Your task to perform on an android device: Go to eBay Image 0: 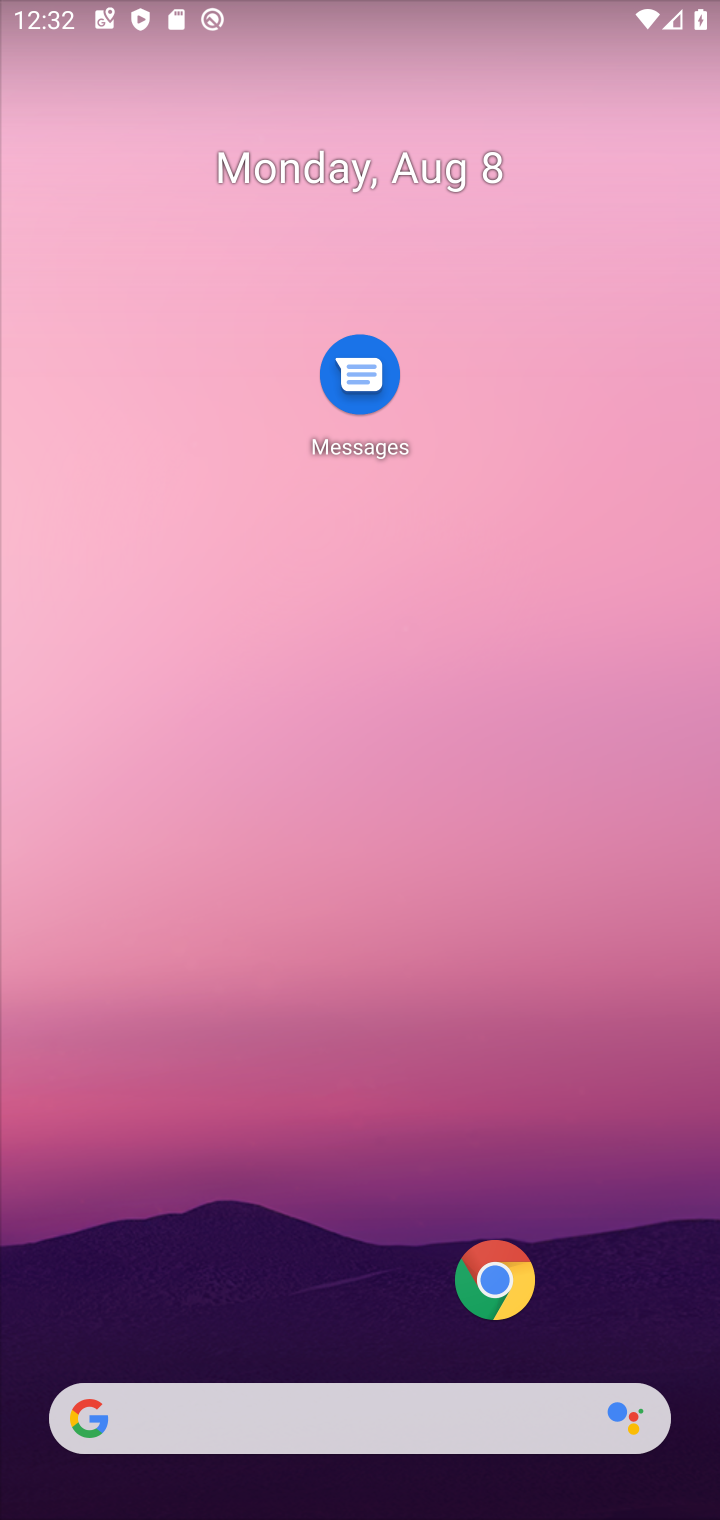
Step 0: press back button
Your task to perform on an android device: Go to eBay Image 1: 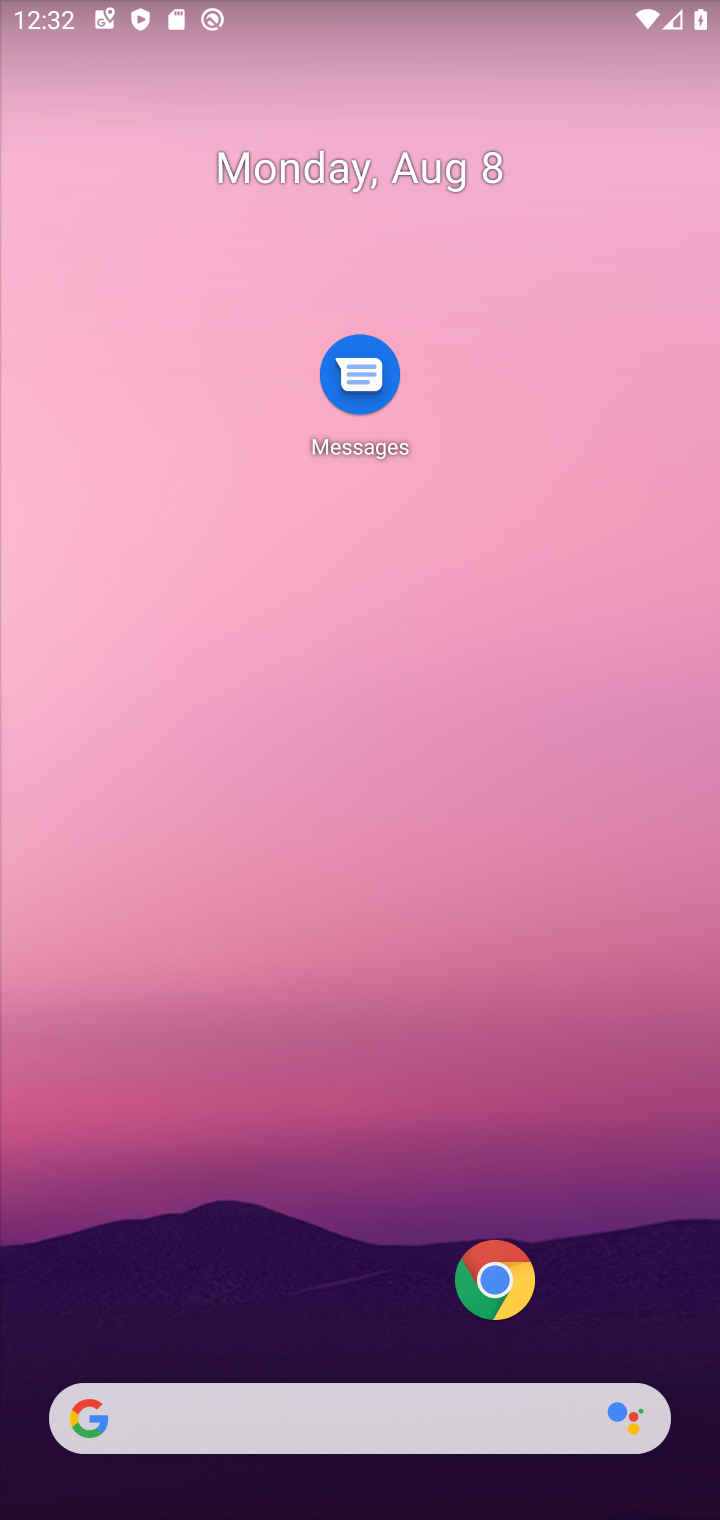
Step 1: click (512, 1282)
Your task to perform on an android device: Go to eBay Image 2: 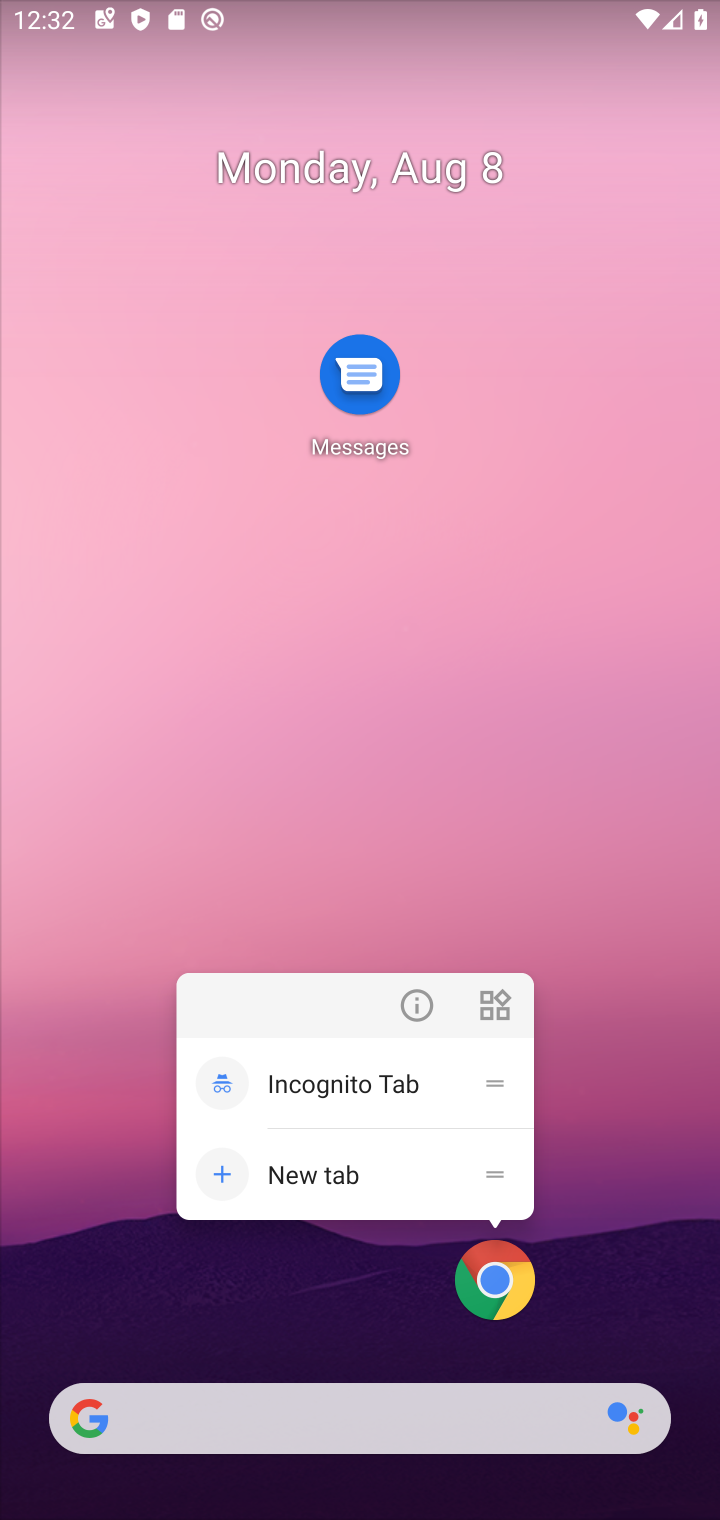
Step 2: click (521, 1277)
Your task to perform on an android device: Go to eBay Image 3: 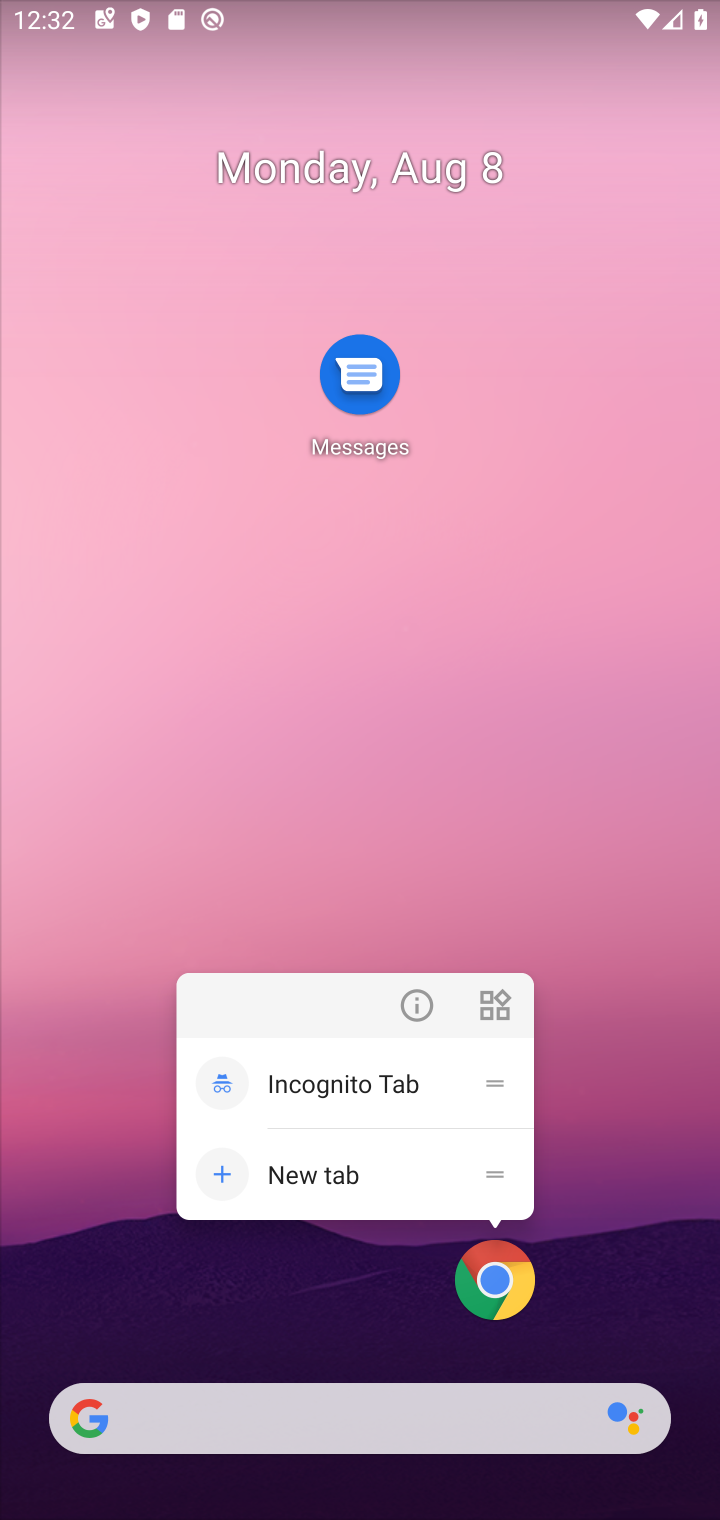
Step 3: click (499, 1295)
Your task to perform on an android device: Go to eBay Image 4: 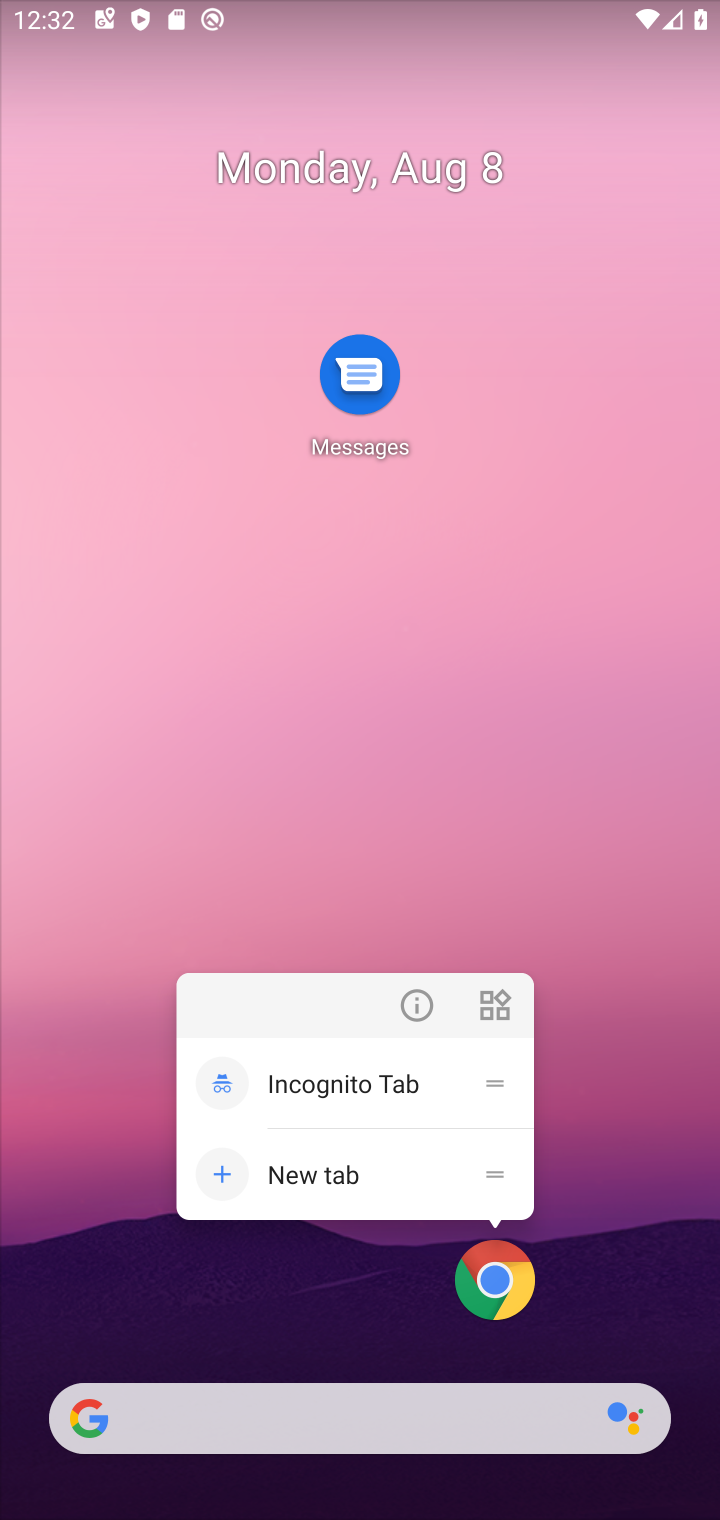
Step 4: click (484, 1281)
Your task to perform on an android device: Go to eBay Image 5: 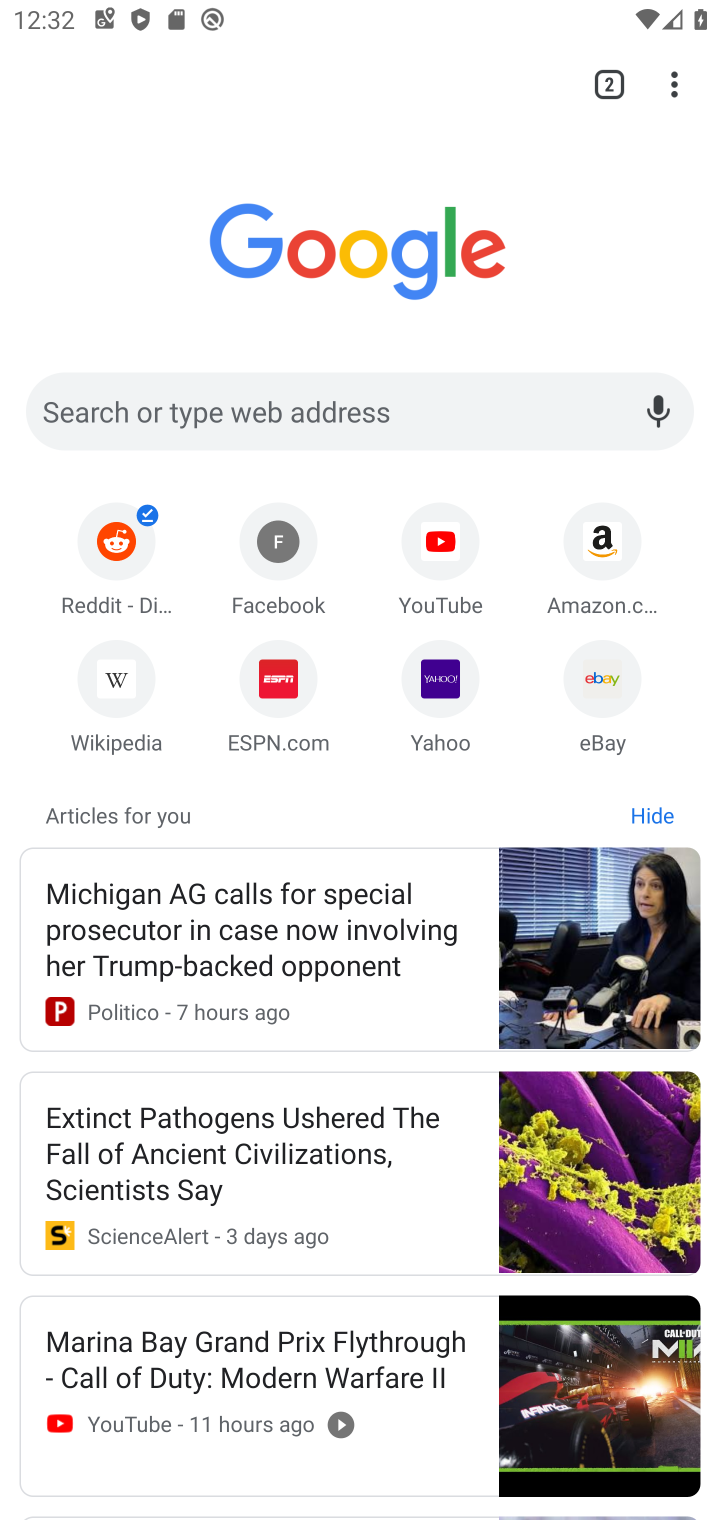
Step 5: click (606, 683)
Your task to perform on an android device: Go to eBay Image 6: 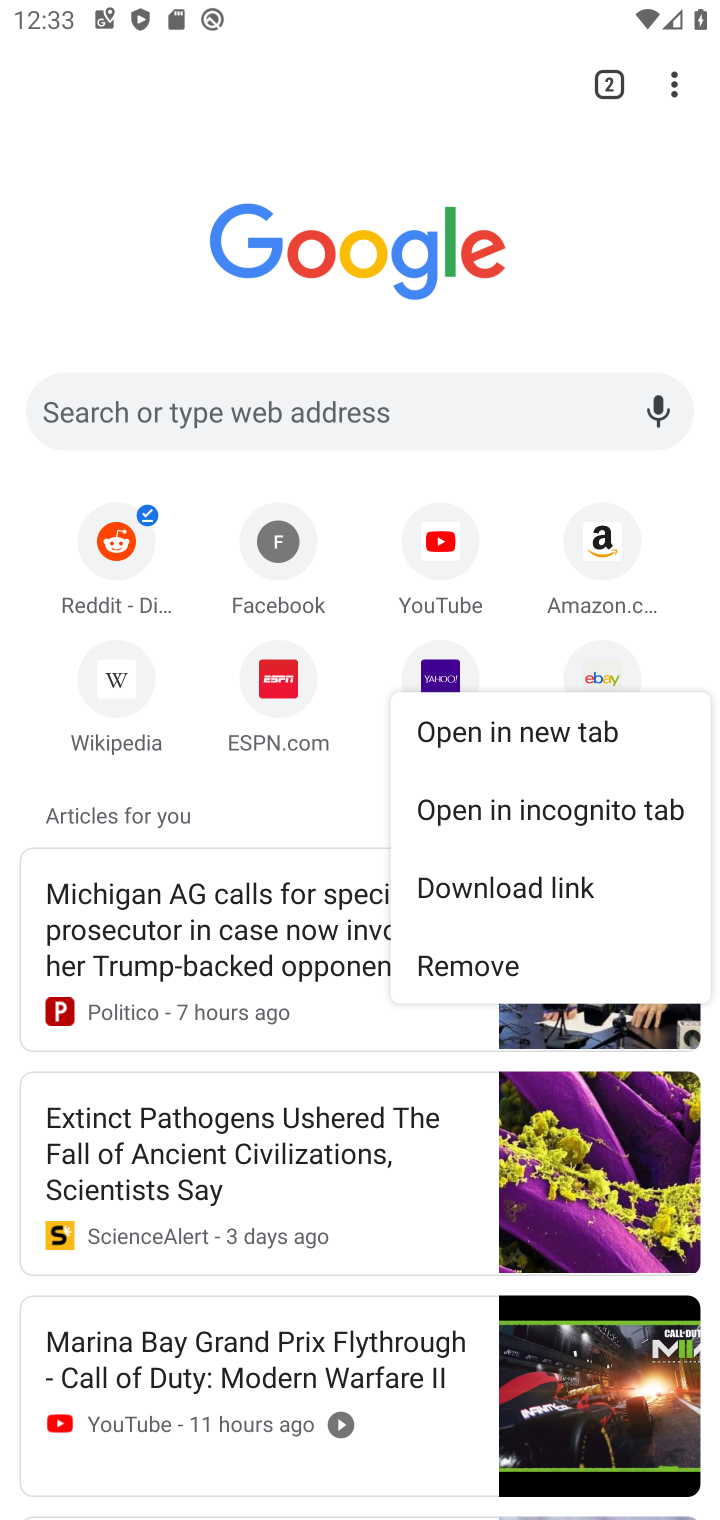
Step 6: click (599, 661)
Your task to perform on an android device: Go to eBay Image 7: 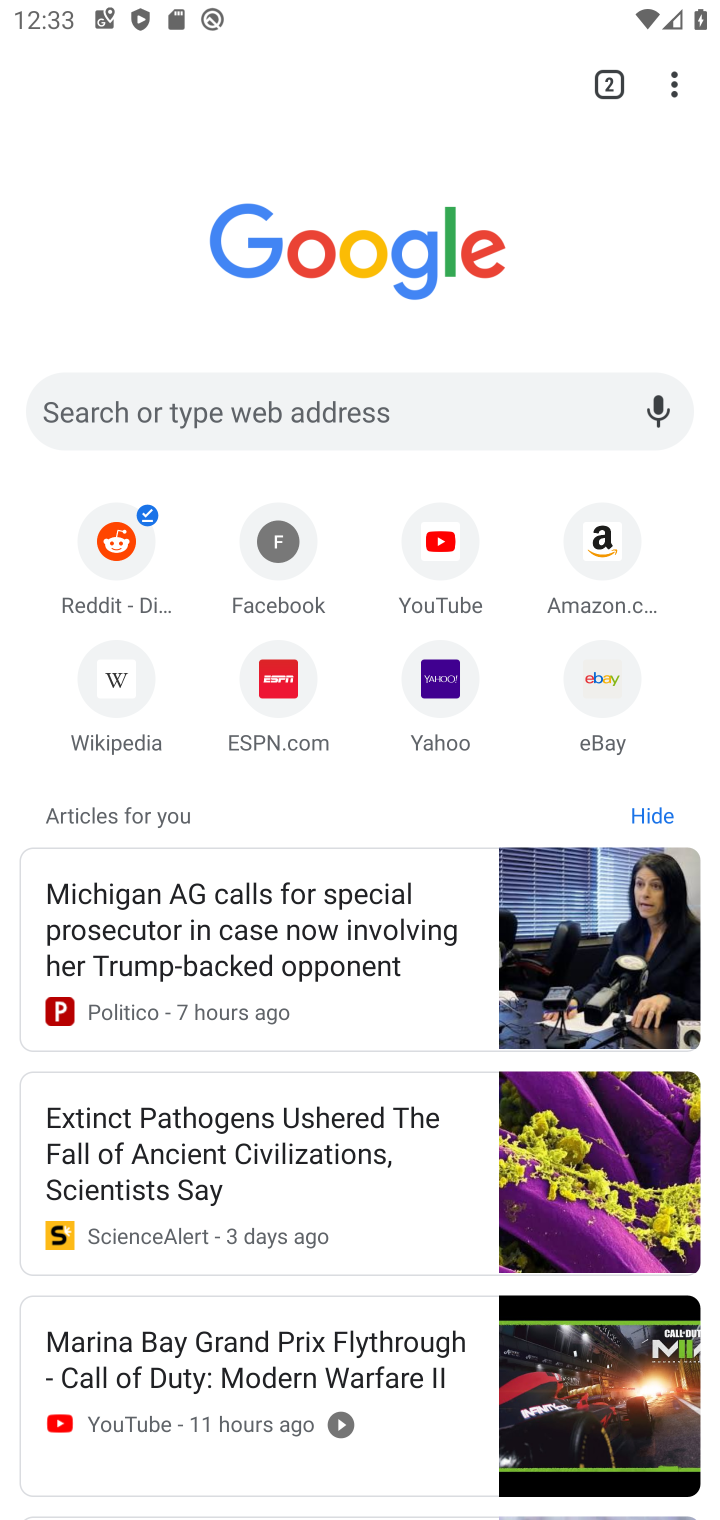
Step 7: click (602, 678)
Your task to perform on an android device: Go to eBay Image 8: 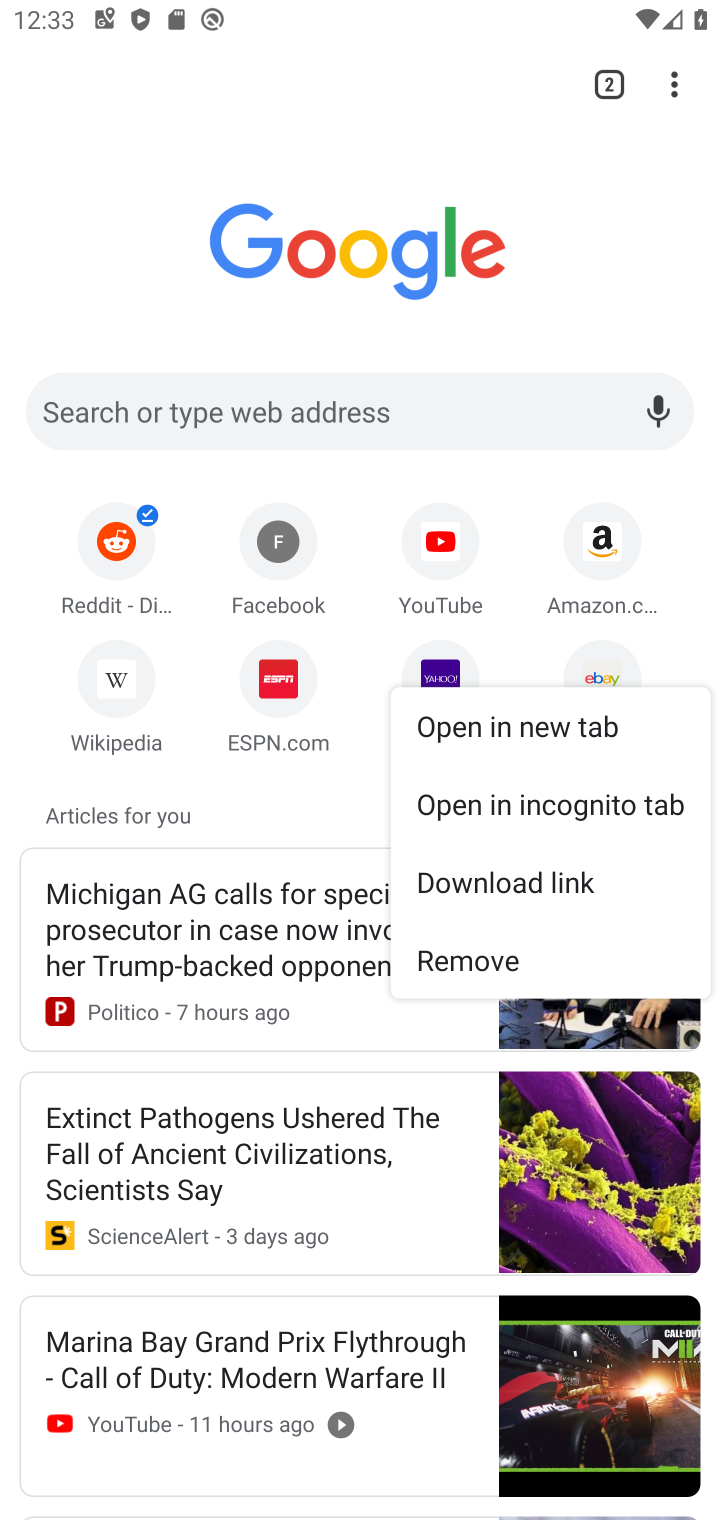
Step 8: click (607, 658)
Your task to perform on an android device: Go to eBay Image 9: 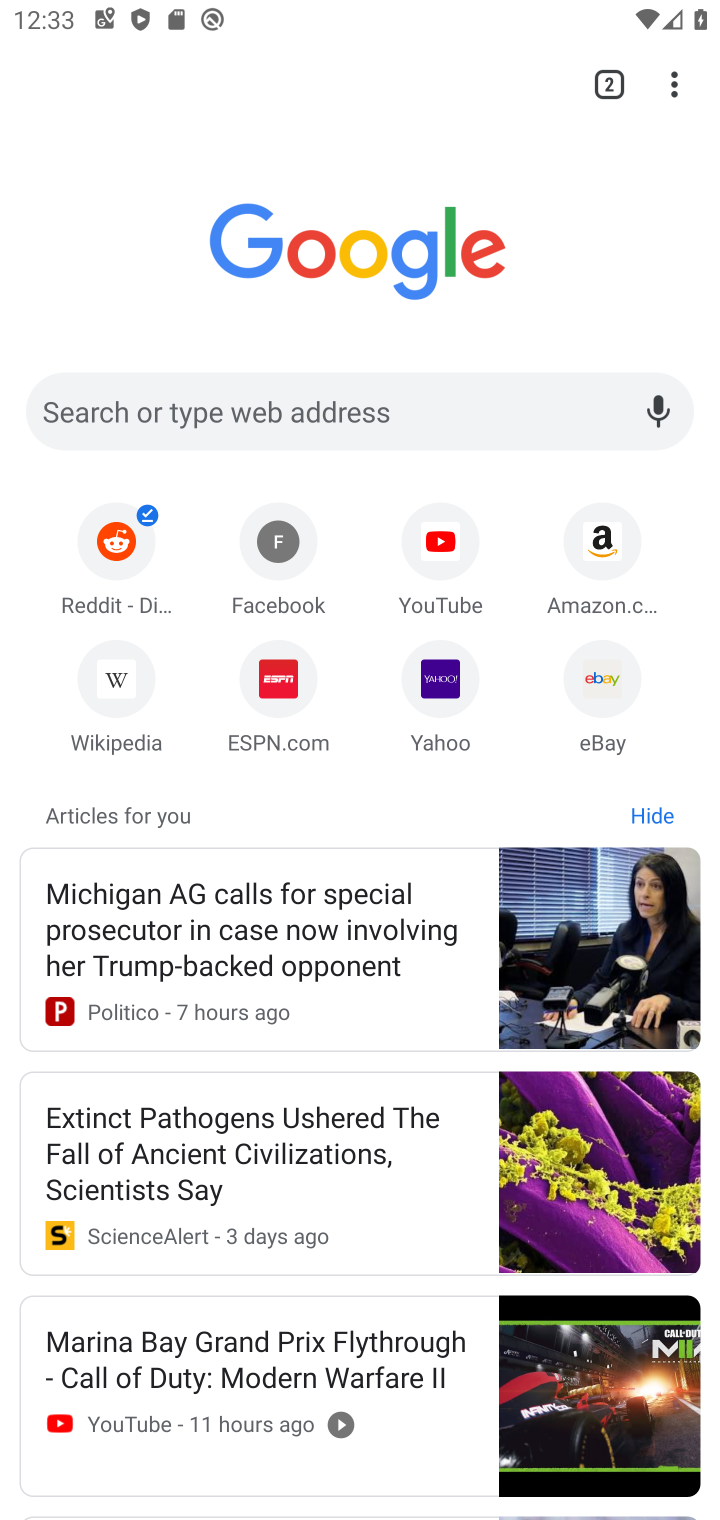
Step 9: click (604, 676)
Your task to perform on an android device: Go to eBay Image 10: 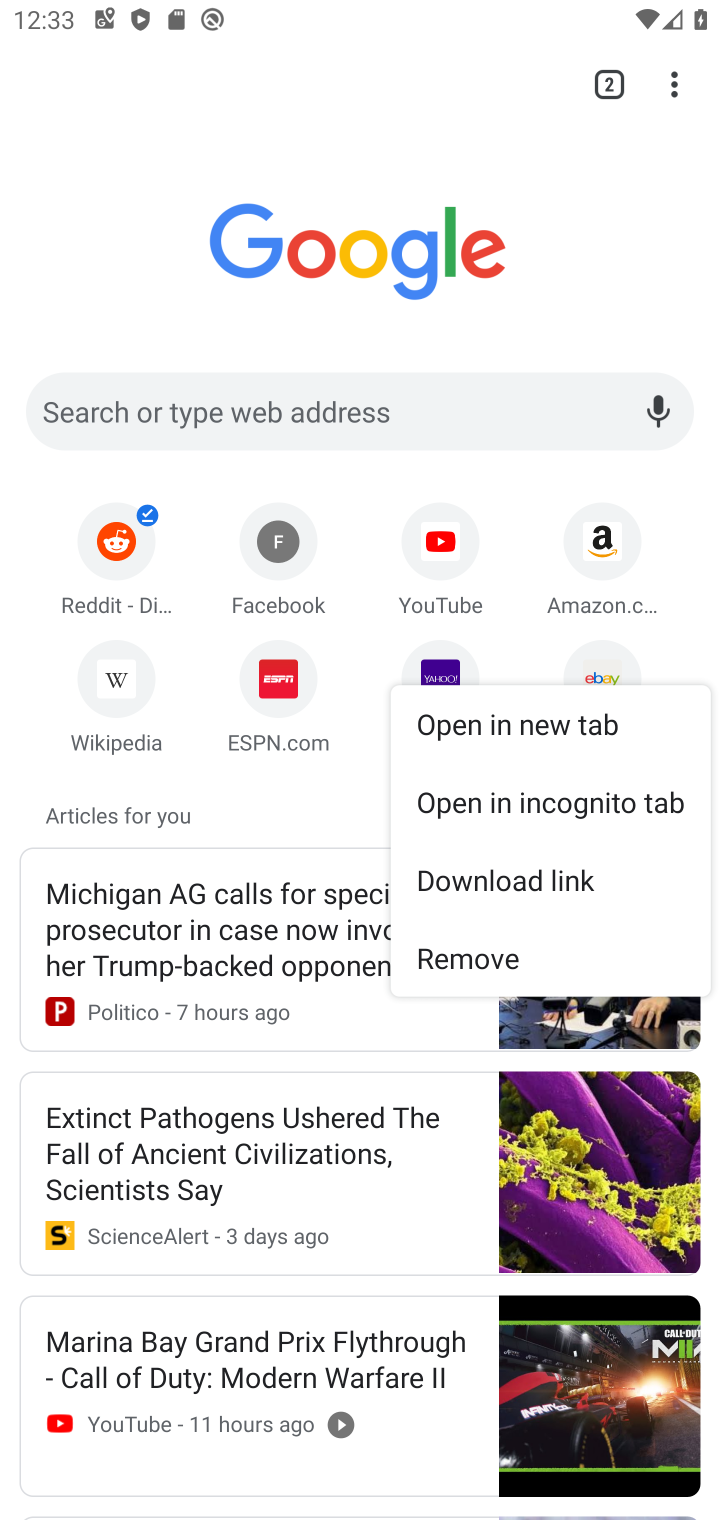
Step 10: click (608, 664)
Your task to perform on an android device: Go to eBay Image 11: 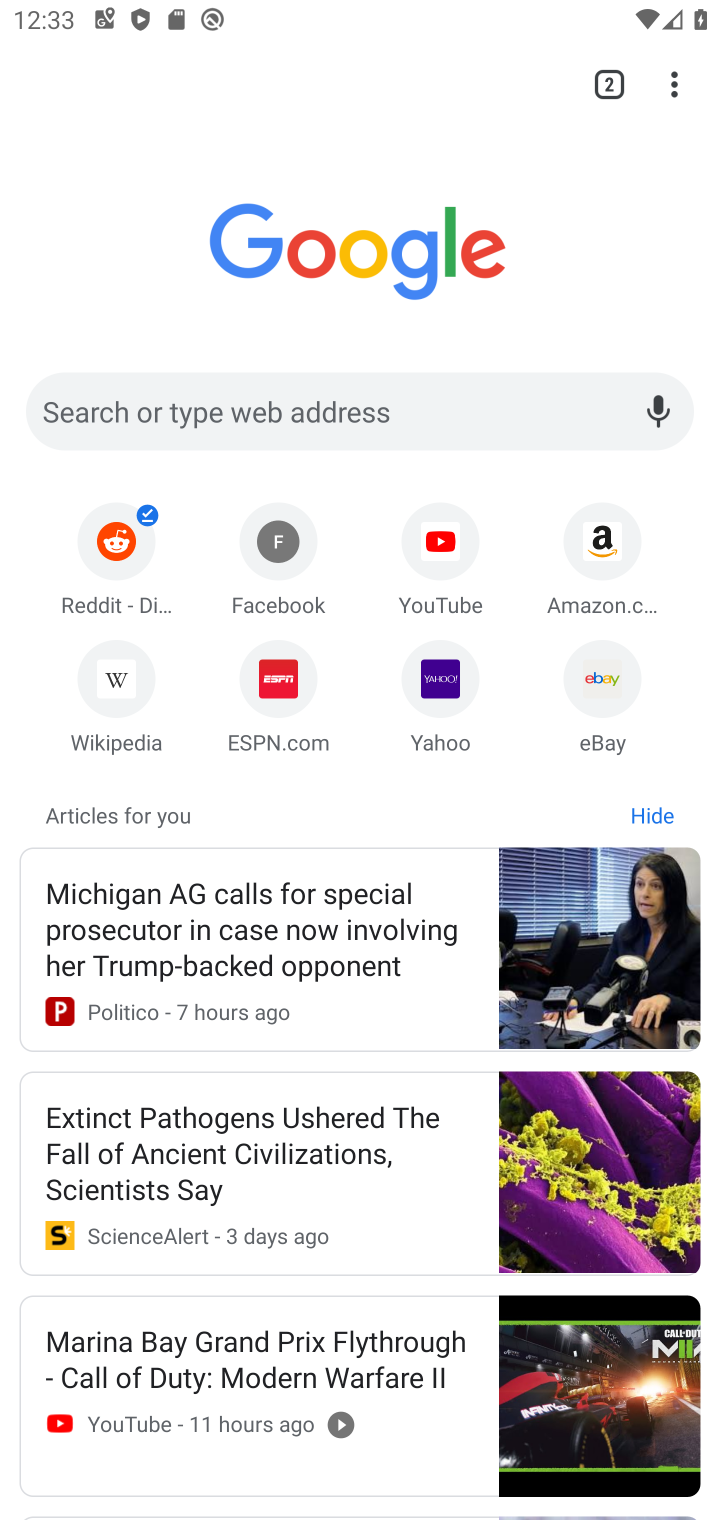
Step 11: click (595, 683)
Your task to perform on an android device: Go to eBay Image 12: 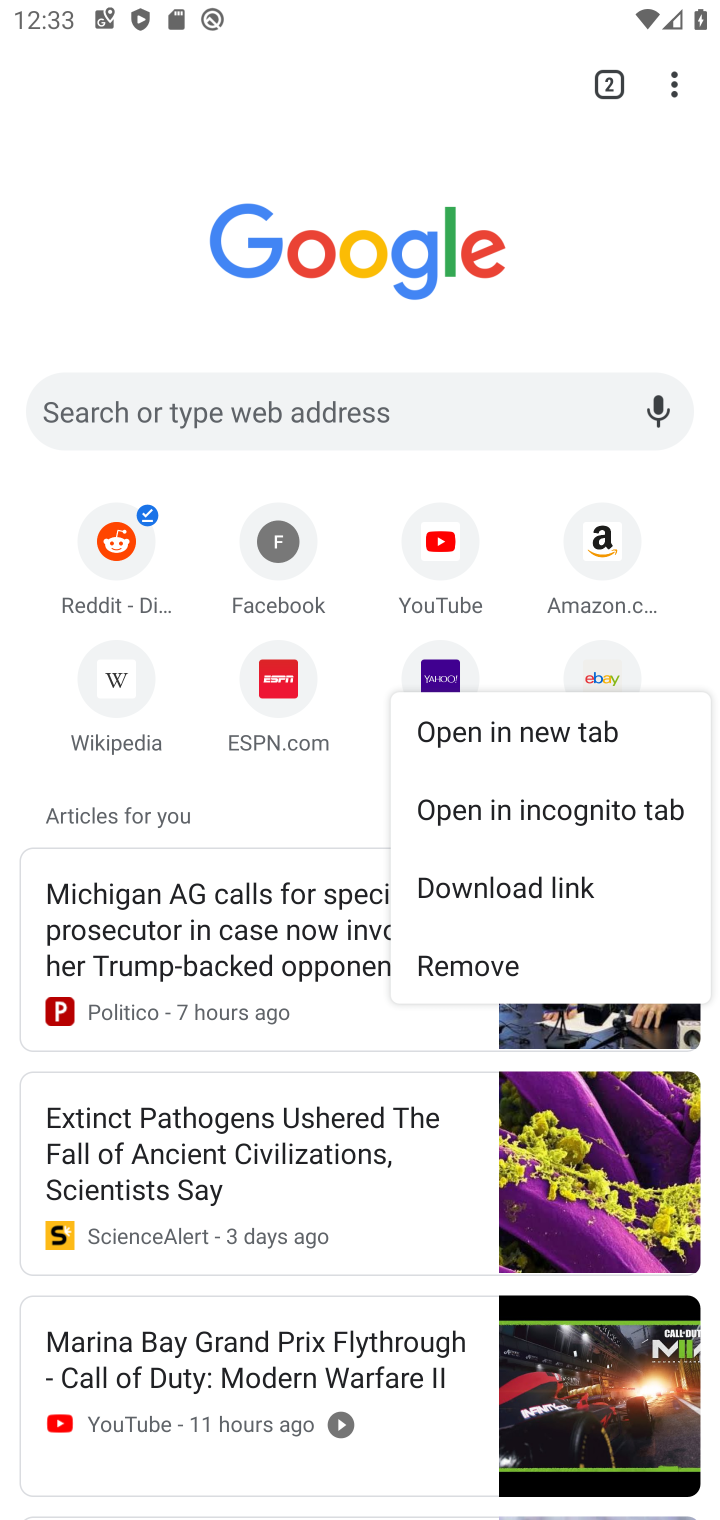
Step 12: click (611, 682)
Your task to perform on an android device: Go to eBay Image 13: 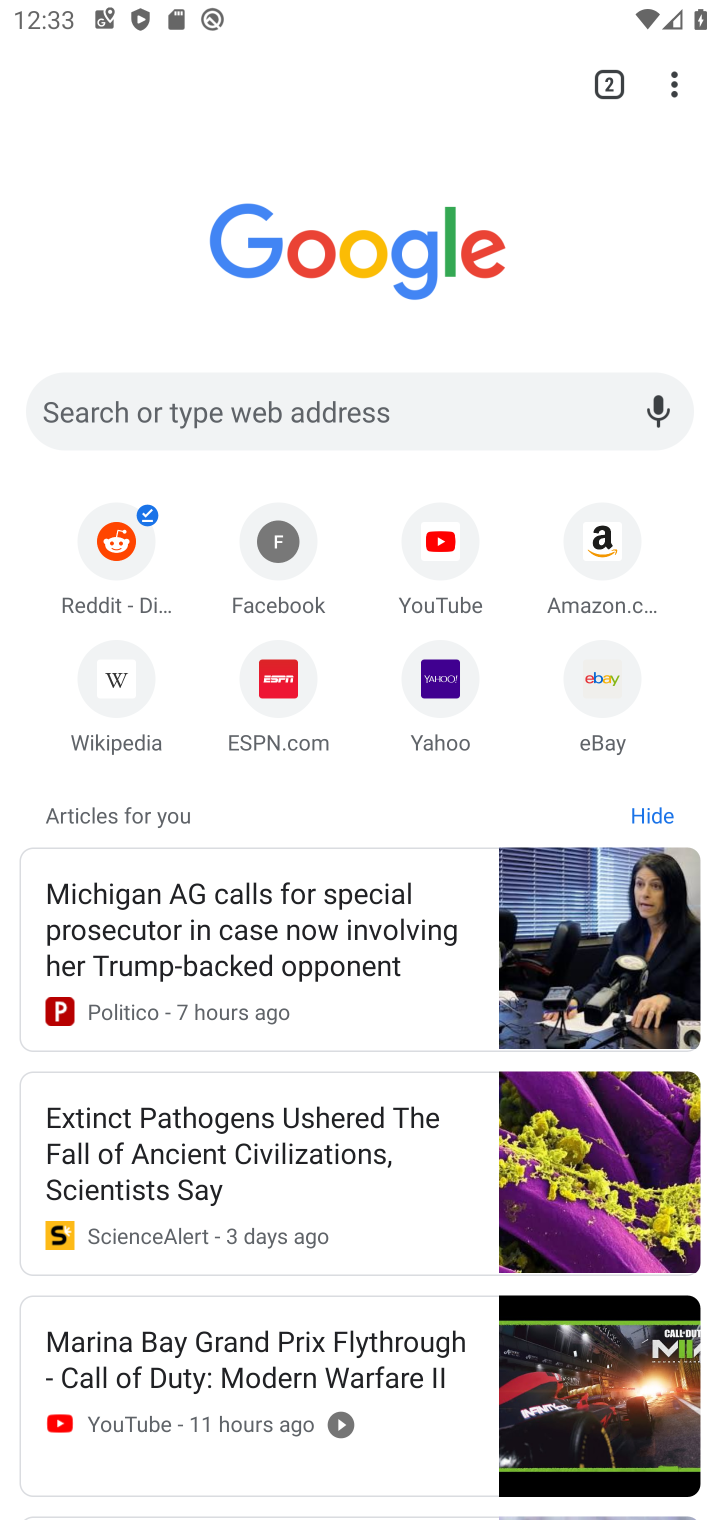
Step 13: click (605, 672)
Your task to perform on an android device: Go to eBay Image 14: 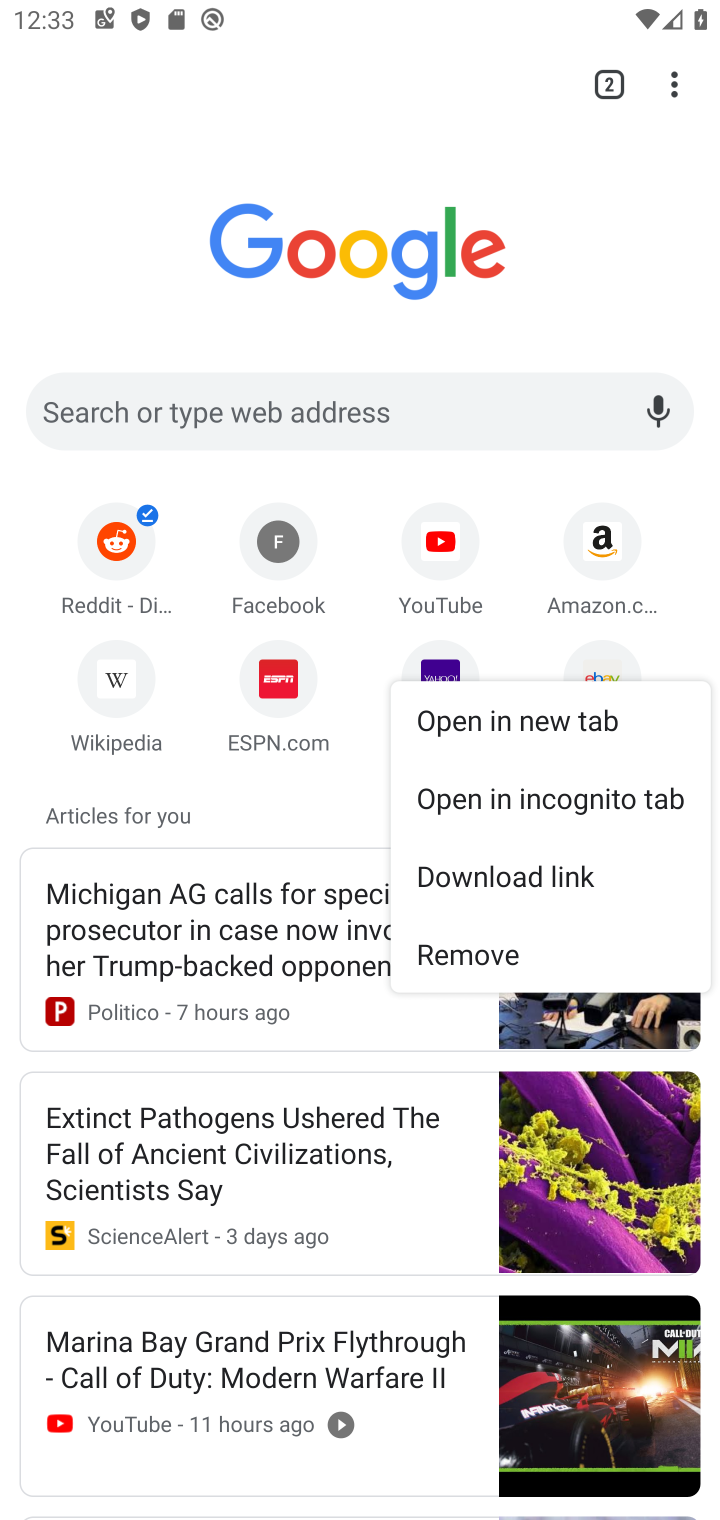
Step 14: task complete